Your task to perform on an android device: Add macbook air to the cart on newegg.com Image 0: 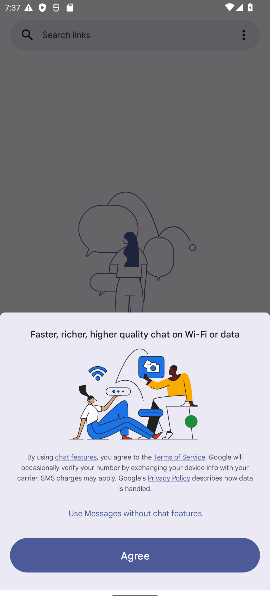
Step 0: press home button
Your task to perform on an android device: Add macbook air to the cart on newegg.com Image 1: 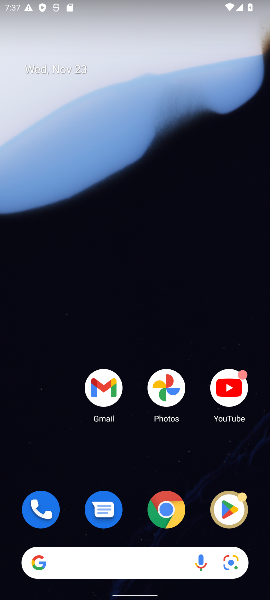
Step 1: click (163, 505)
Your task to perform on an android device: Add macbook air to the cart on newegg.com Image 2: 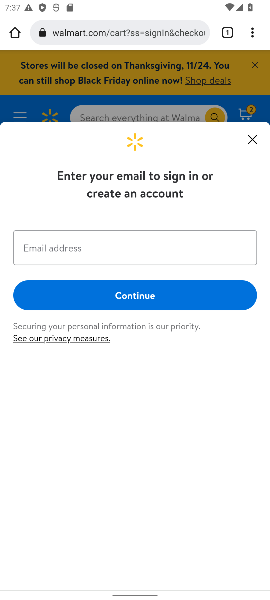
Step 2: click (131, 45)
Your task to perform on an android device: Add macbook air to the cart on newegg.com Image 3: 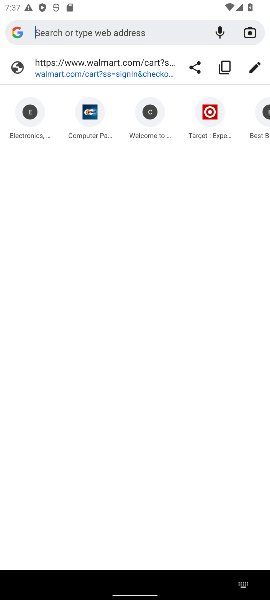
Step 3: type "newegg.com"
Your task to perform on an android device: Add macbook air to the cart on newegg.com Image 4: 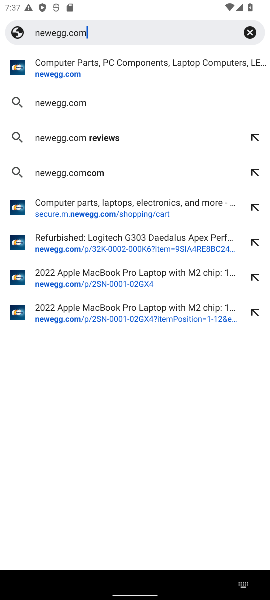
Step 4: click (103, 72)
Your task to perform on an android device: Add macbook air to the cart on newegg.com Image 5: 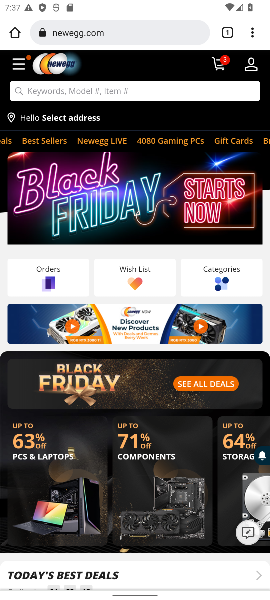
Step 5: click (129, 94)
Your task to perform on an android device: Add macbook air to the cart on newegg.com Image 6: 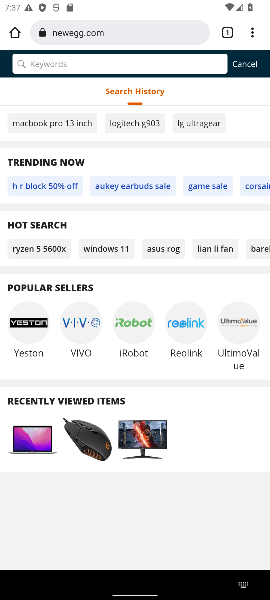
Step 6: type "mackbook air"
Your task to perform on an android device: Add macbook air to the cart on newegg.com Image 7: 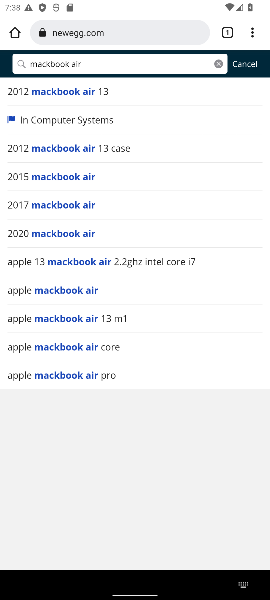
Step 7: press enter
Your task to perform on an android device: Add macbook air to the cart on newegg.com Image 8: 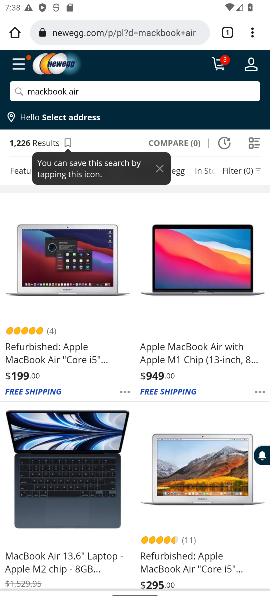
Step 8: click (160, 347)
Your task to perform on an android device: Add macbook air to the cart on newegg.com Image 9: 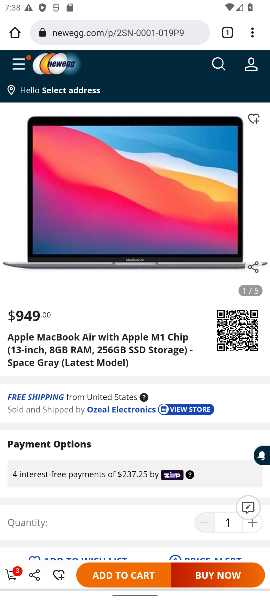
Step 9: click (134, 577)
Your task to perform on an android device: Add macbook air to the cart on newegg.com Image 10: 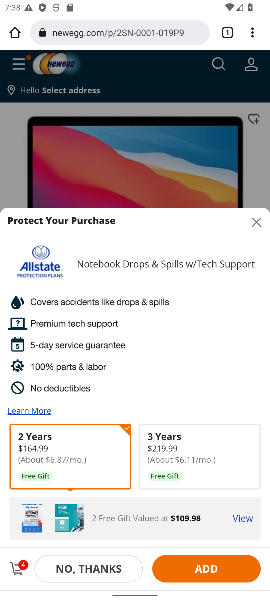
Step 10: task complete